Your task to perform on an android device: Open Android settings Image 0: 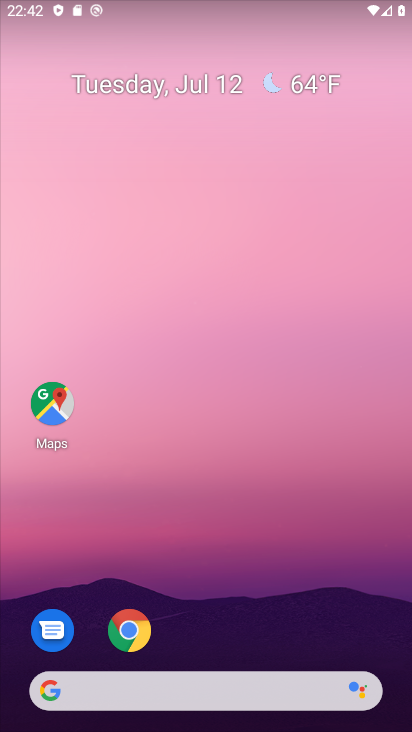
Step 0: drag from (323, 597) to (318, 67)
Your task to perform on an android device: Open Android settings Image 1: 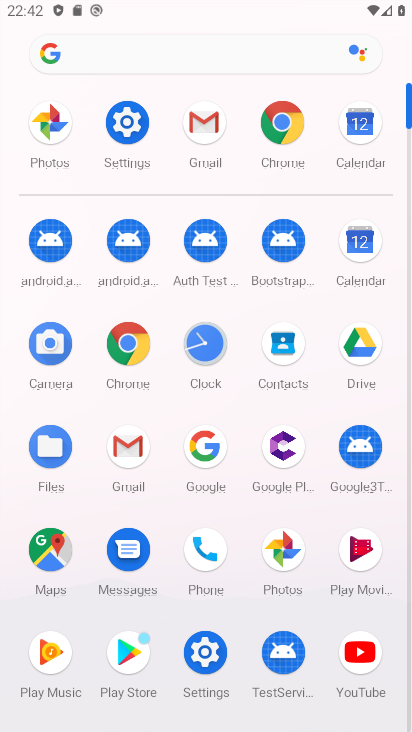
Step 1: click (129, 112)
Your task to perform on an android device: Open Android settings Image 2: 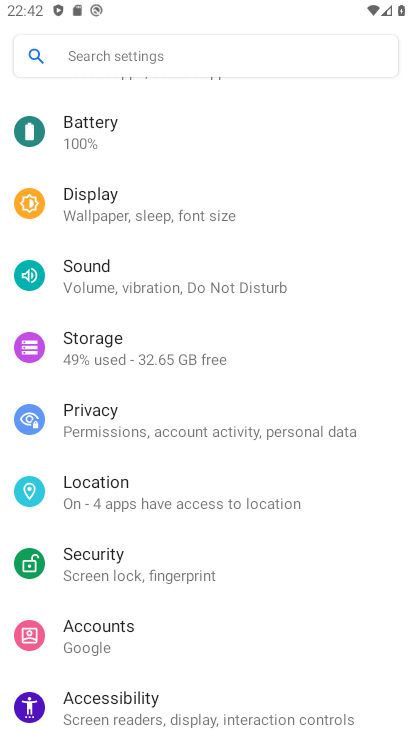
Step 2: drag from (355, 560) to (363, 389)
Your task to perform on an android device: Open Android settings Image 3: 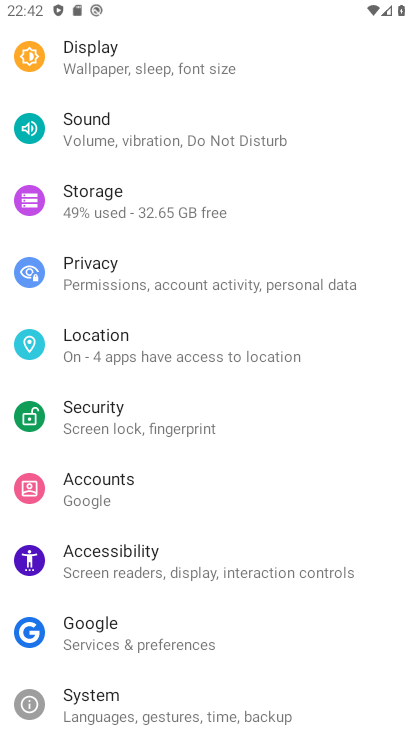
Step 3: drag from (354, 603) to (354, 482)
Your task to perform on an android device: Open Android settings Image 4: 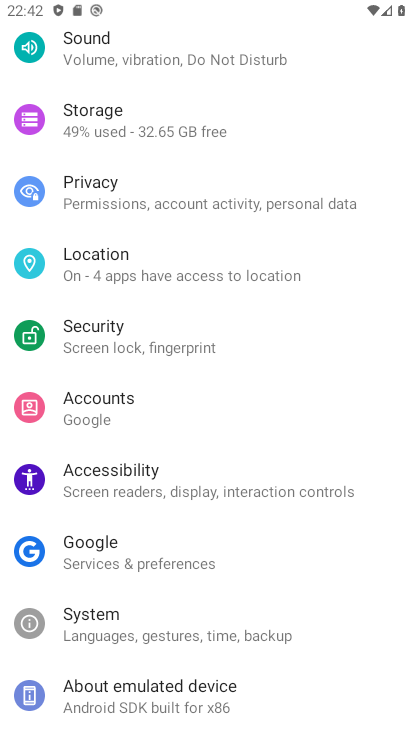
Step 4: drag from (344, 585) to (342, 426)
Your task to perform on an android device: Open Android settings Image 5: 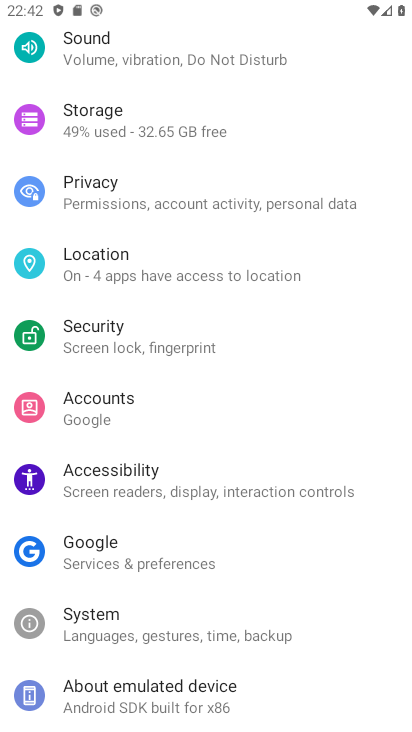
Step 5: drag from (364, 328) to (370, 539)
Your task to perform on an android device: Open Android settings Image 6: 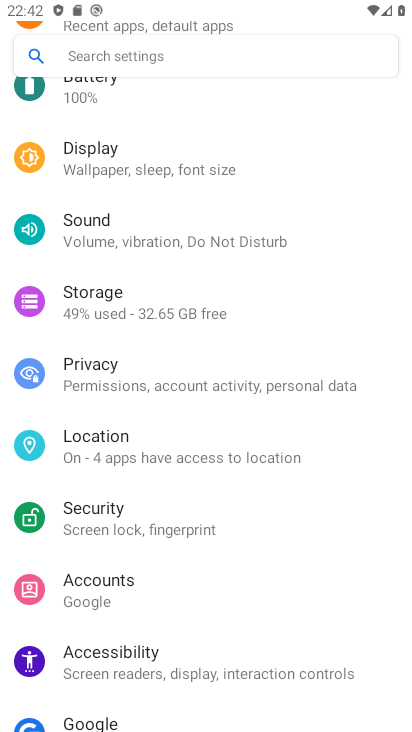
Step 6: drag from (355, 245) to (358, 431)
Your task to perform on an android device: Open Android settings Image 7: 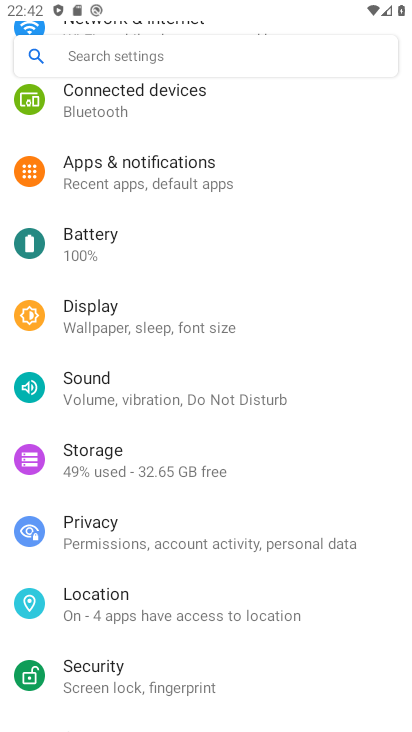
Step 7: drag from (323, 213) to (332, 392)
Your task to perform on an android device: Open Android settings Image 8: 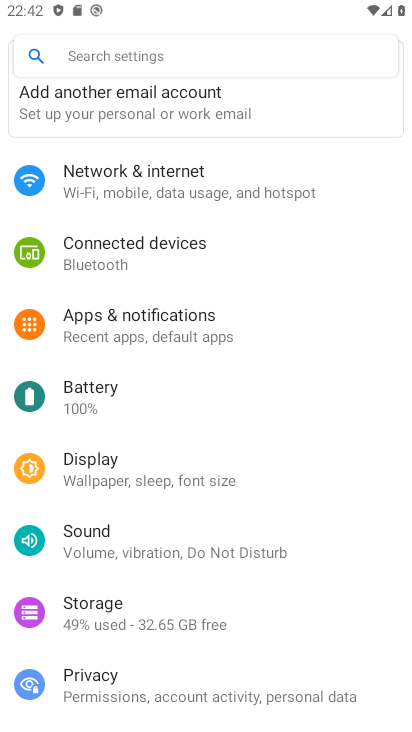
Step 8: drag from (331, 254) to (330, 429)
Your task to perform on an android device: Open Android settings Image 9: 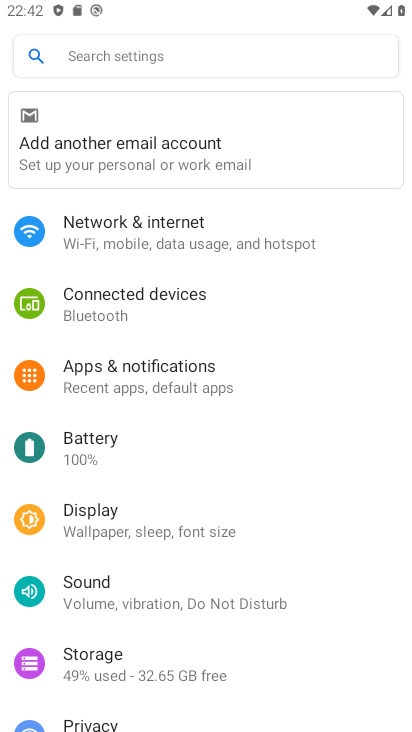
Step 9: drag from (339, 509) to (343, 338)
Your task to perform on an android device: Open Android settings Image 10: 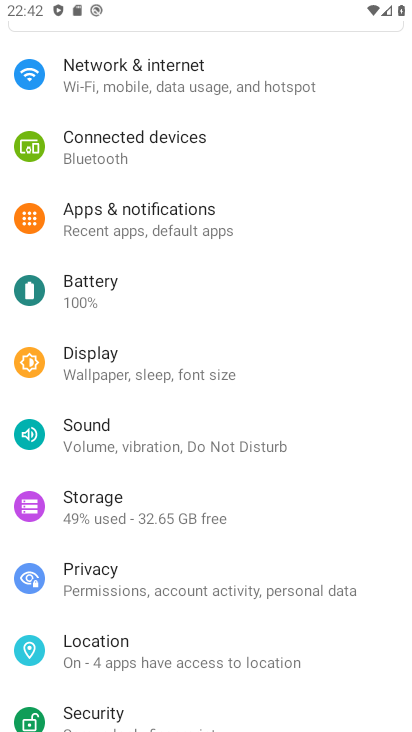
Step 10: drag from (353, 672) to (351, 409)
Your task to perform on an android device: Open Android settings Image 11: 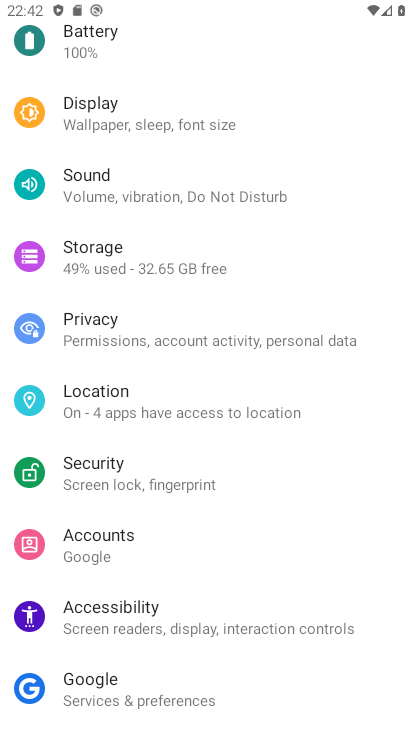
Step 11: drag from (356, 665) to (363, 399)
Your task to perform on an android device: Open Android settings Image 12: 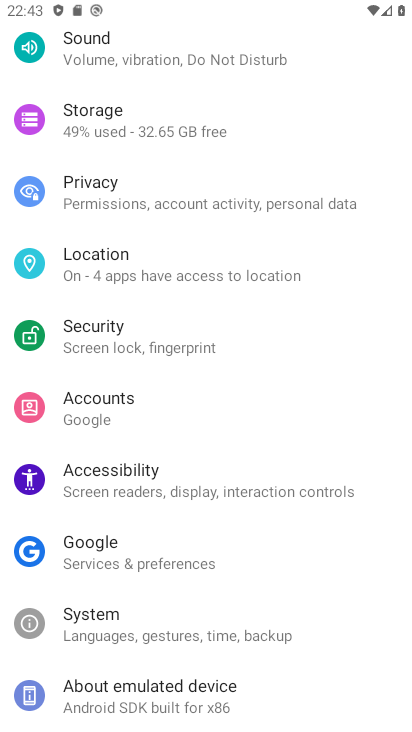
Step 12: drag from (337, 609) to (353, 417)
Your task to perform on an android device: Open Android settings Image 13: 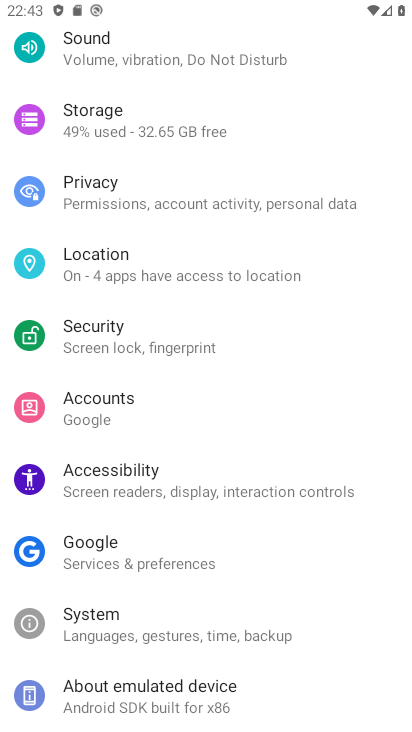
Step 13: click (296, 635)
Your task to perform on an android device: Open Android settings Image 14: 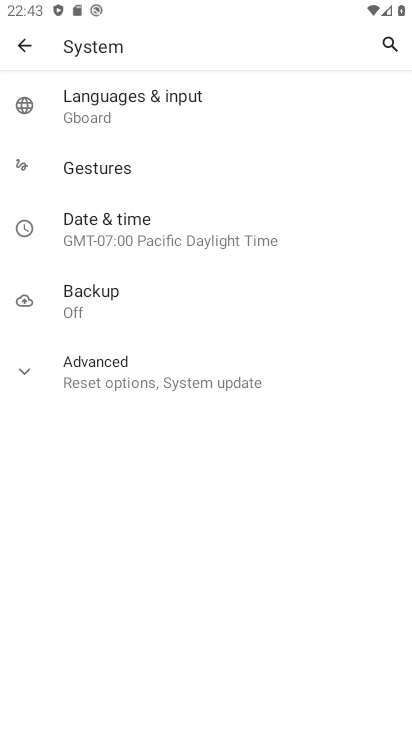
Step 14: click (197, 376)
Your task to perform on an android device: Open Android settings Image 15: 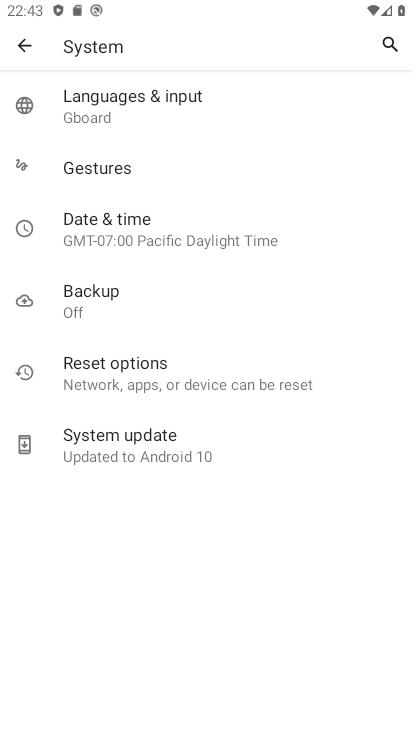
Step 15: task complete